Your task to perform on an android device: turn off priority inbox in the gmail app Image 0: 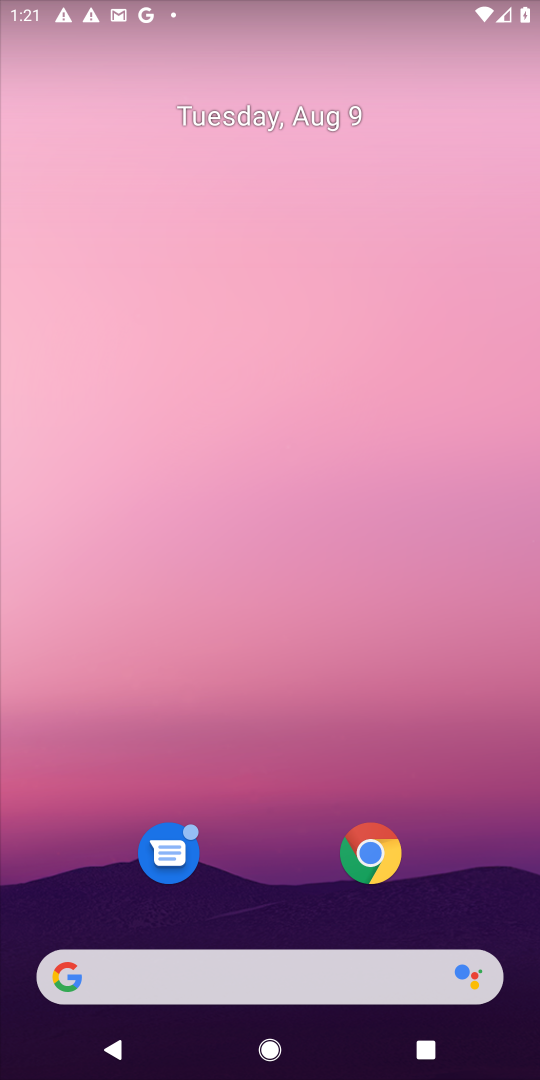
Step 0: drag from (307, 895) to (202, 120)
Your task to perform on an android device: turn off priority inbox in the gmail app Image 1: 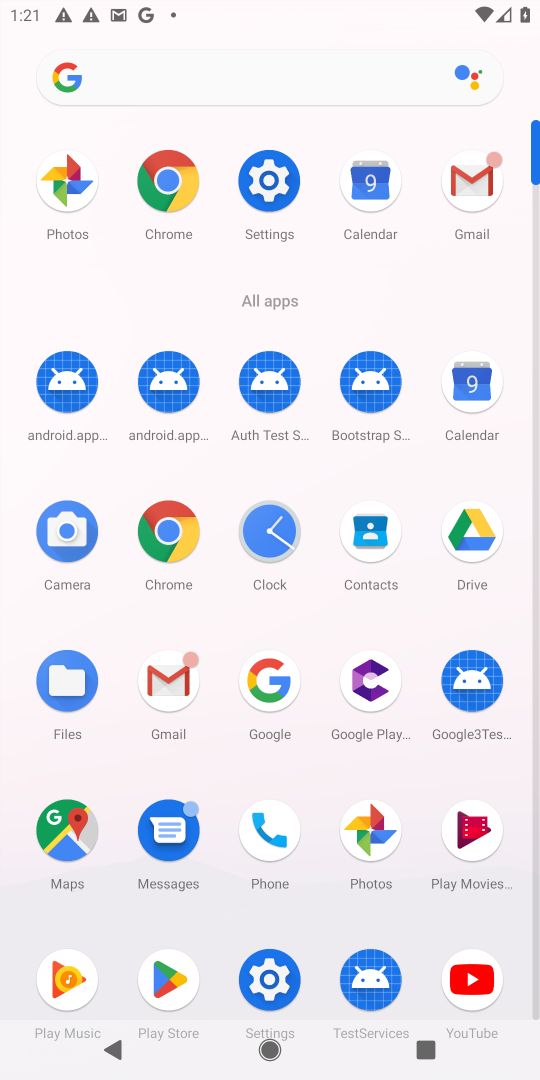
Step 1: click (464, 174)
Your task to perform on an android device: turn off priority inbox in the gmail app Image 2: 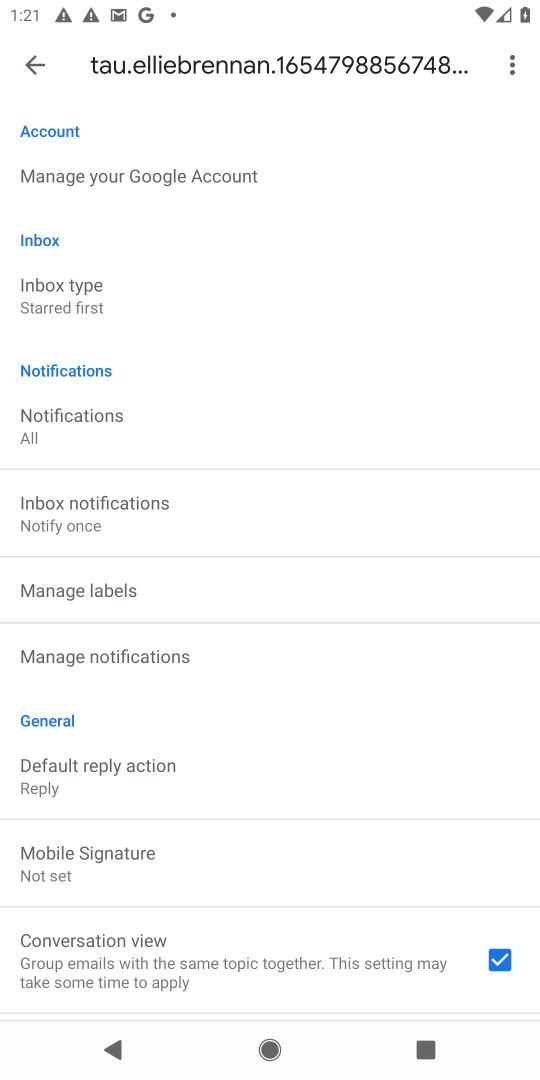
Step 2: click (97, 281)
Your task to perform on an android device: turn off priority inbox in the gmail app Image 3: 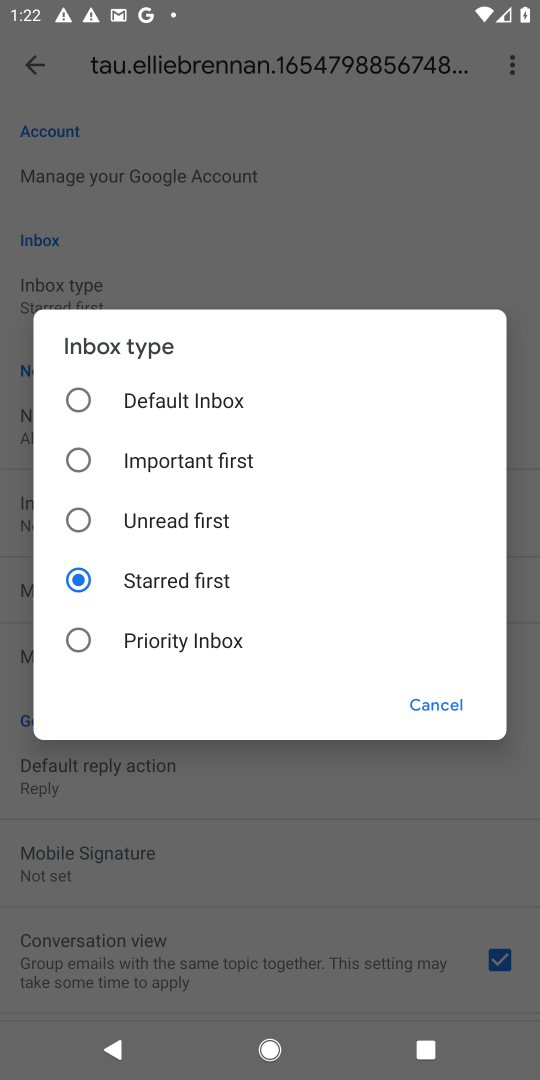
Step 3: click (74, 510)
Your task to perform on an android device: turn off priority inbox in the gmail app Image 4: 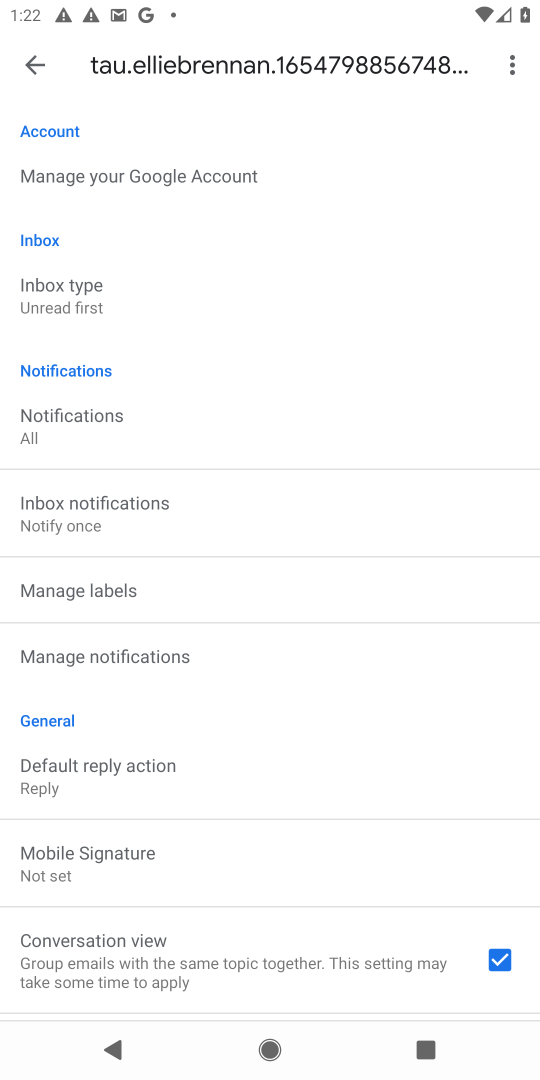
Step 4: task complete